Your task to perform on an android device: see tabs open on other devices in the chrome app Image 0: 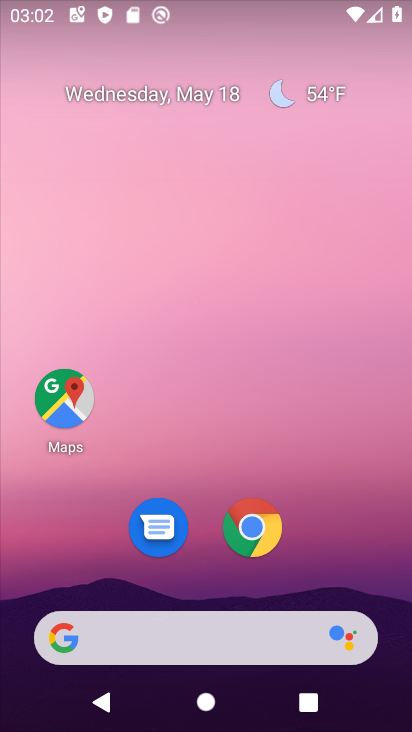
Step 0: drag from (194, 603) to (197, 45)
Your task to perform on an android device: see tabs open on other devices in the chrome app Image 1: 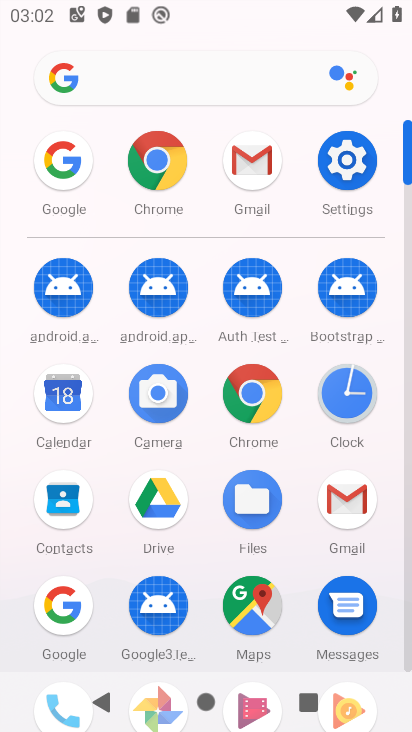
Step 1: click (252, 412)
Your task to perform on an android device: see tabs open on other devices in the chrome app Image 2: 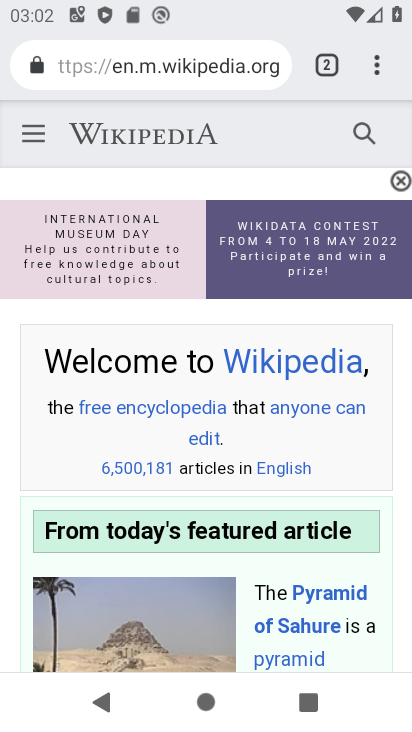
Step 2: click (324, 78)
Your task to perform on an android device: see tabs open on other devices in the chrome app Image 3: 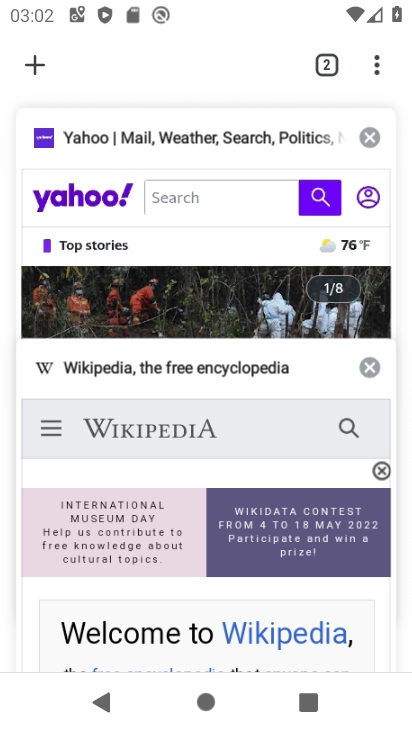
Step 3: task complete